Your task to perform on an android device: Find coffee shops on Maps Image 0: 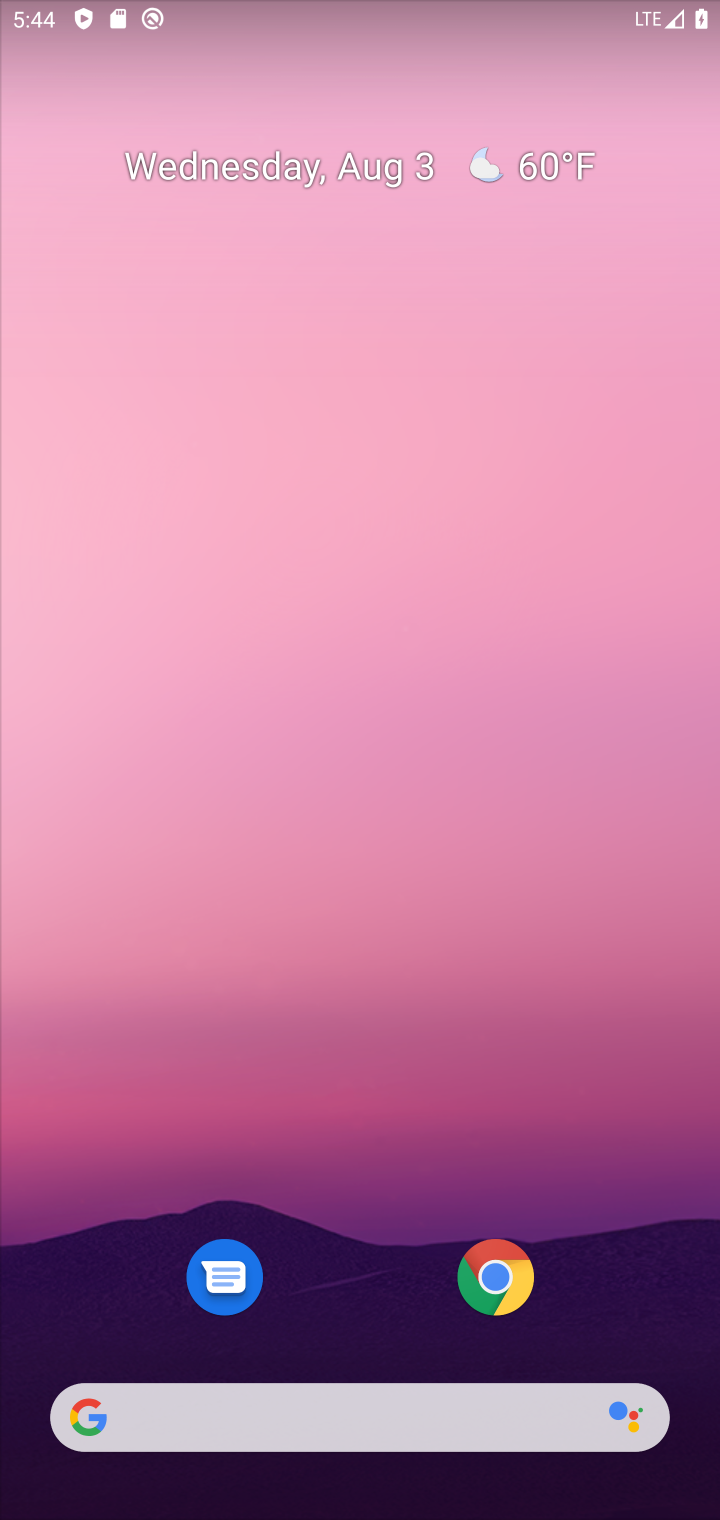
Step 0: drag from (381, 1107) to (519, 89)
Your task to perform on an android device: Find coffee shops on Maps Image 1: 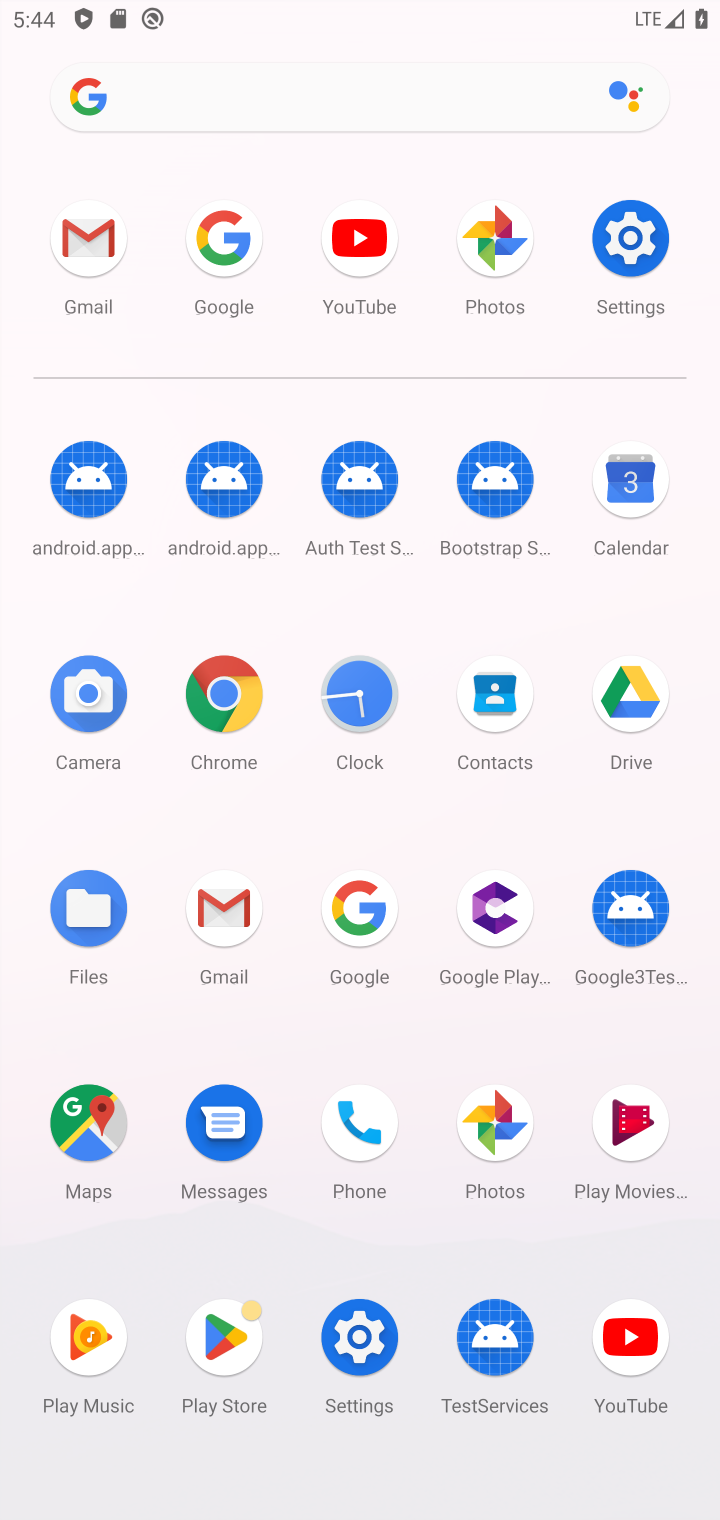
Step 1: click (80, 1127)
Your task to perform on an android device: Find coffee shops on Maps Image 2: 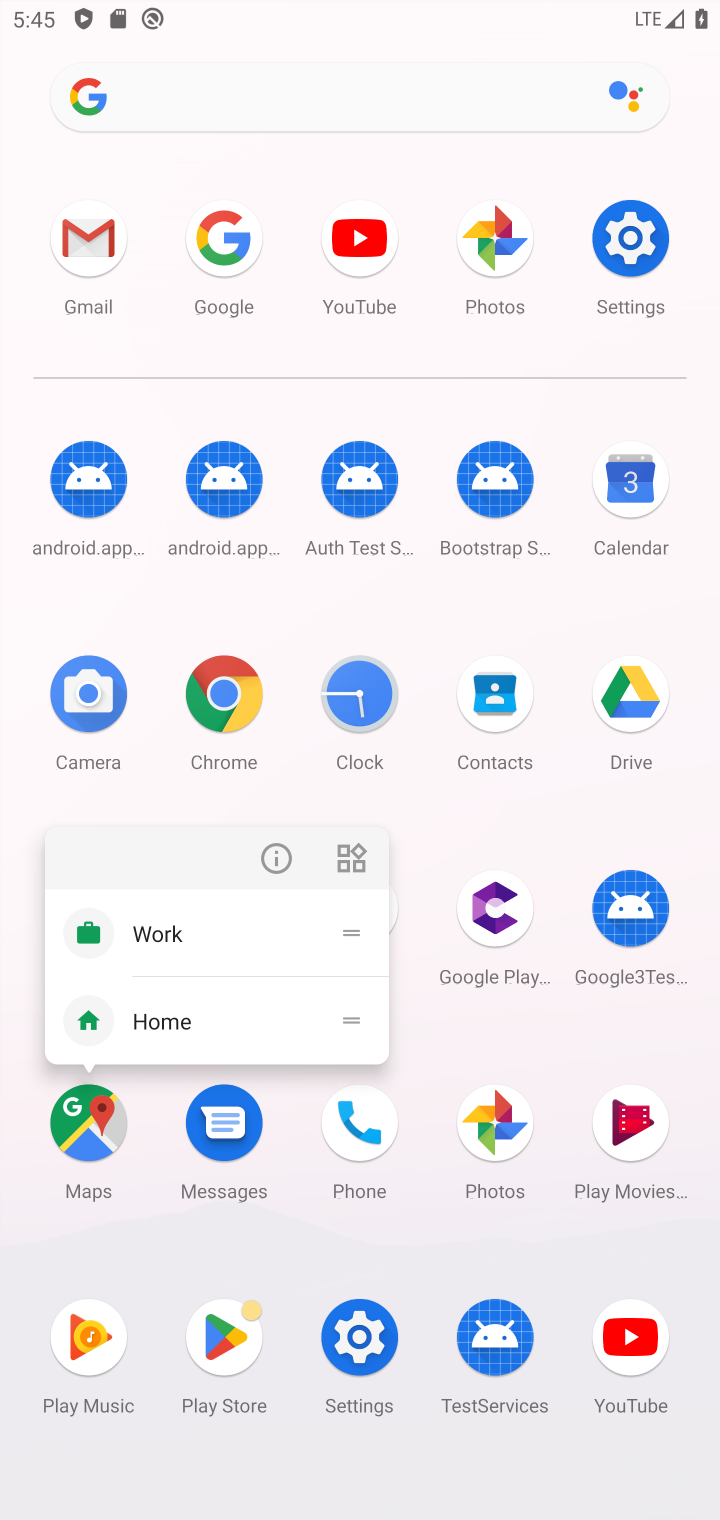
Step 2: click (98, 1132)
Your task to perform on an android device: Find coffee shops on Maps Image 3: 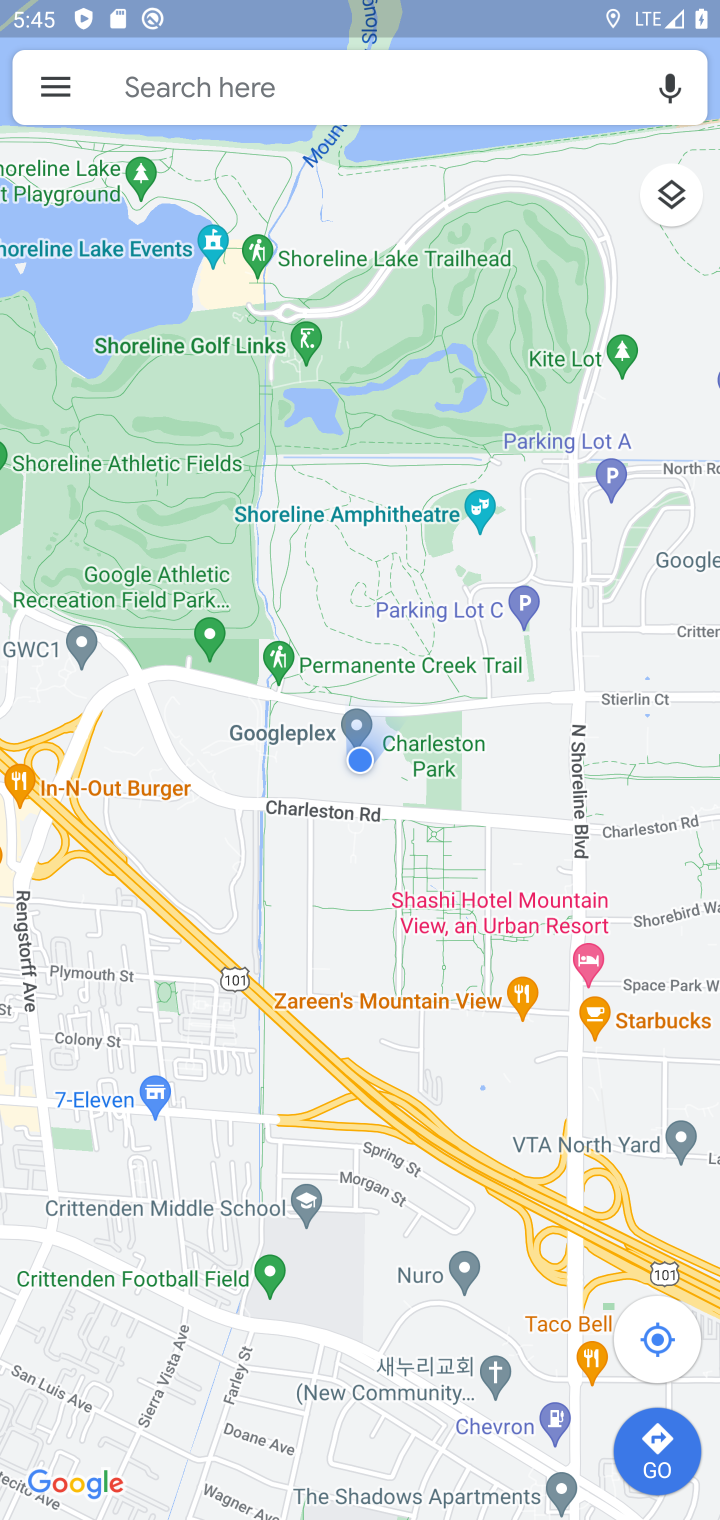
Step 3: click (248, 93)
Your task to perform on an android device: Find coffee shops on Maps Image 4: 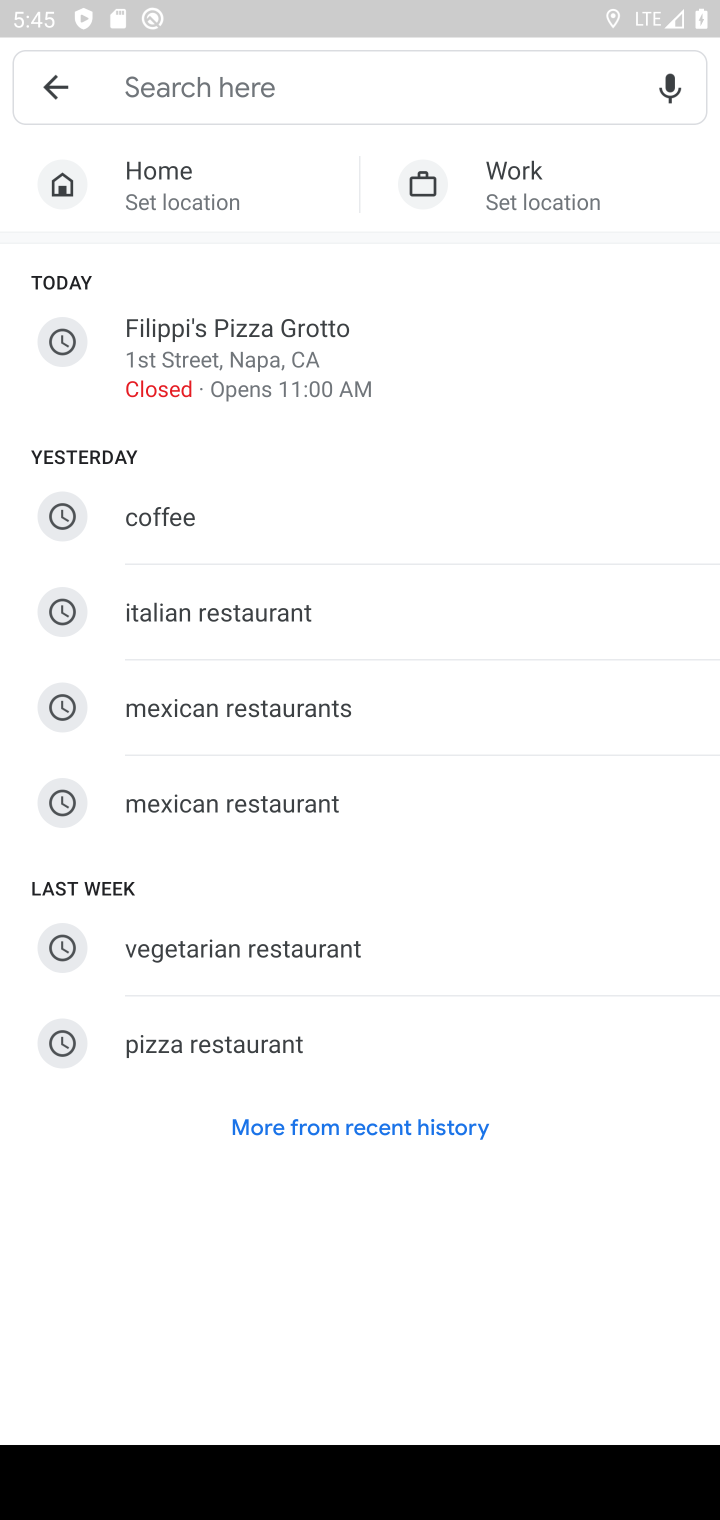
Step 4: click (331, 100)
Your task to perform on an android device: Find coffee shops on Maps Image 5: 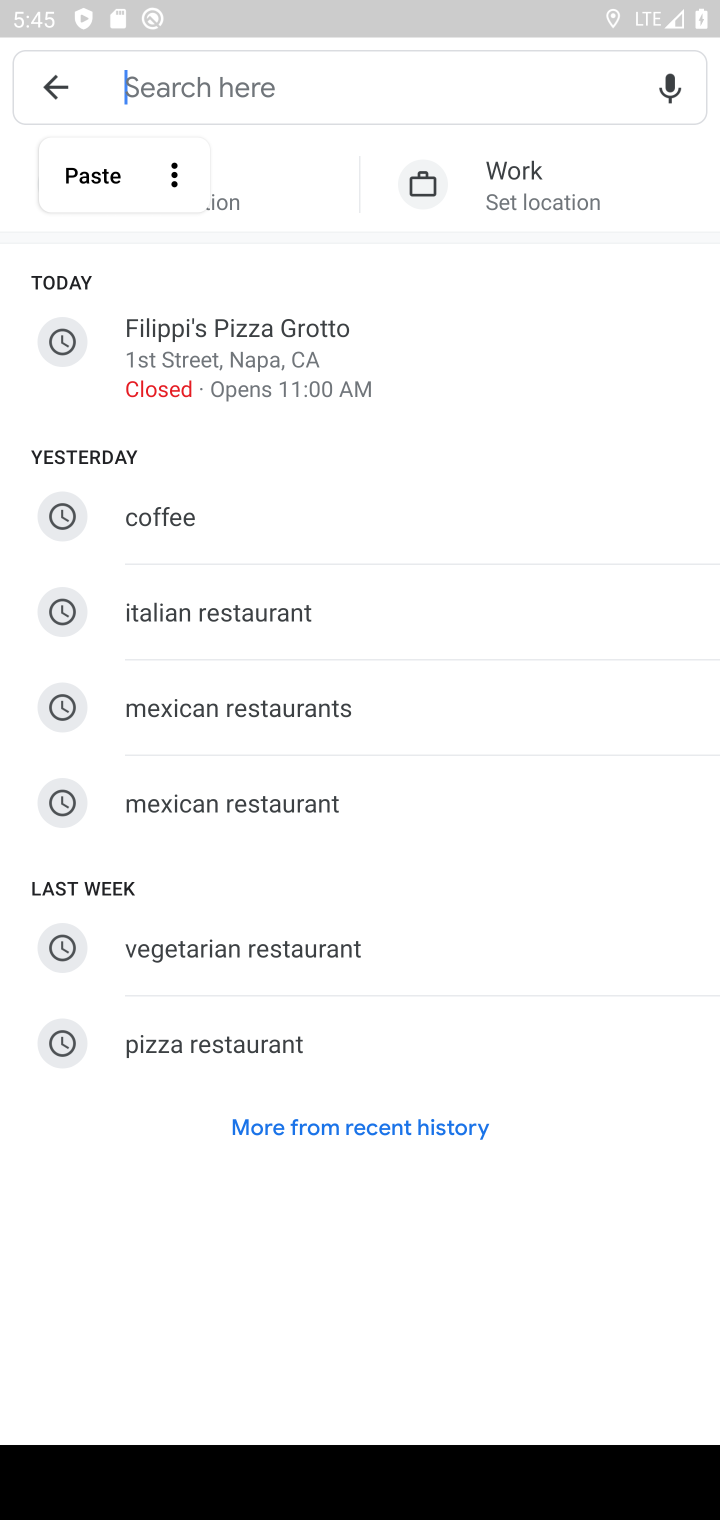
Step 5: click (259, 99)
Your task to perform on an android device: Find coffee shops on Maps Image 6: 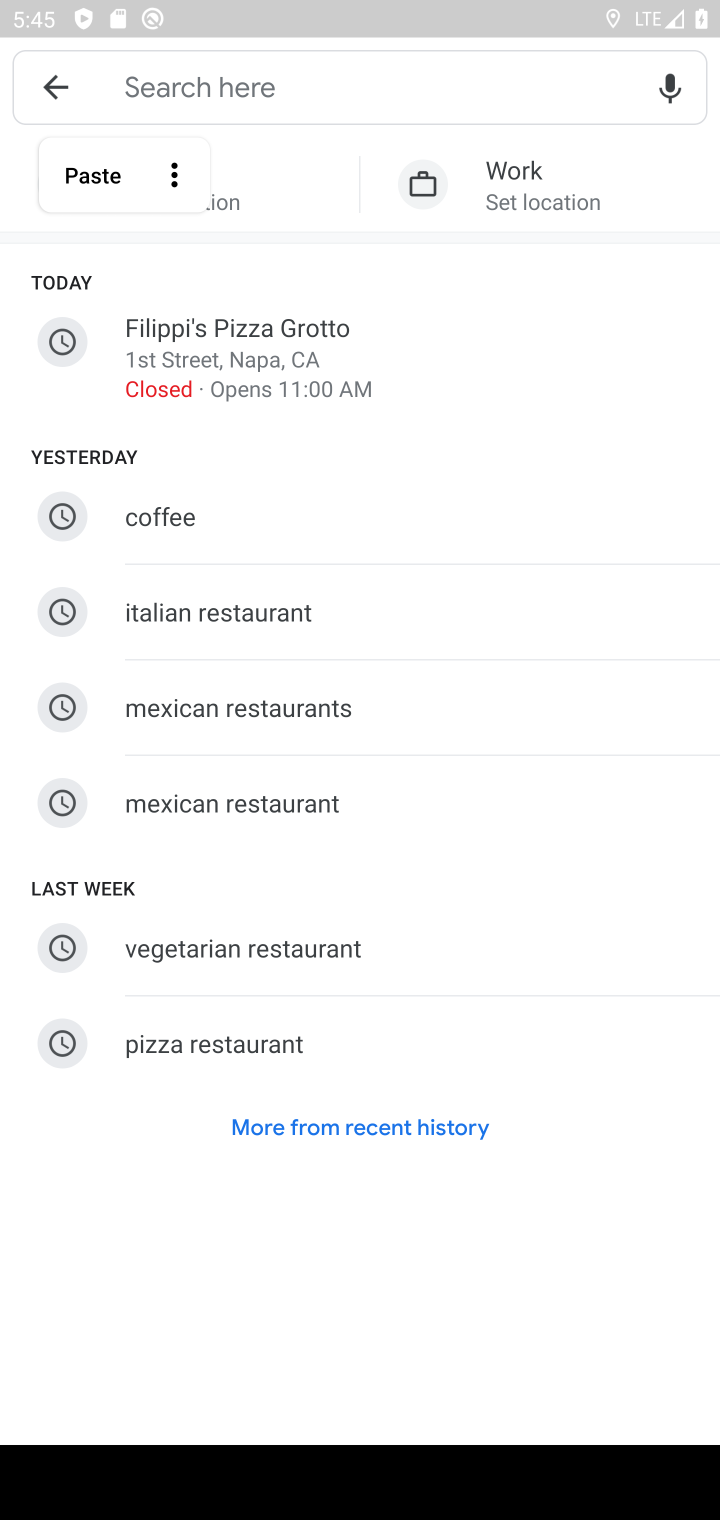
Step 6: click (219, 528)
Your task to perform on an android device: Find coffee shops on Maps Image 7: 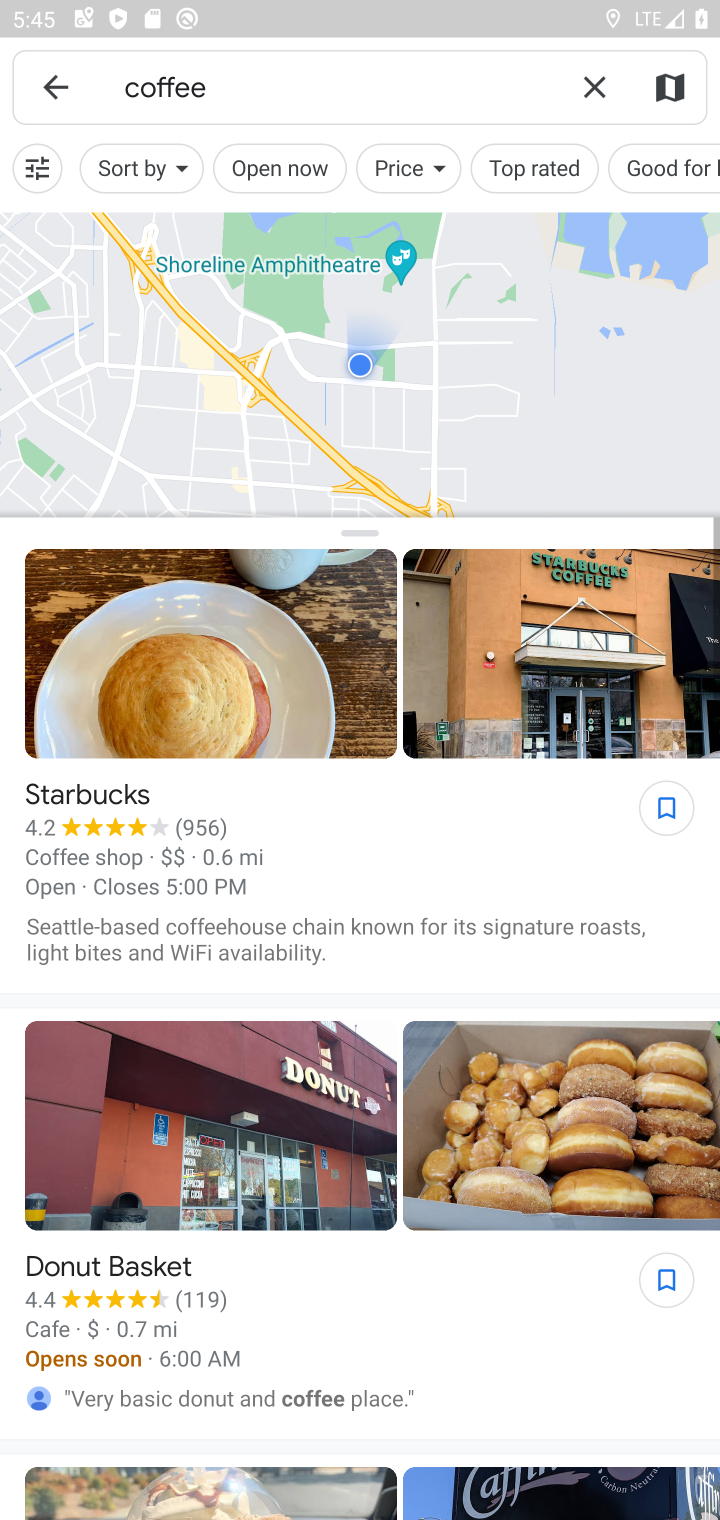
Step 7: task complete